Your task to perform on an android device: What's the weather going to be tomorrow? Image 0: 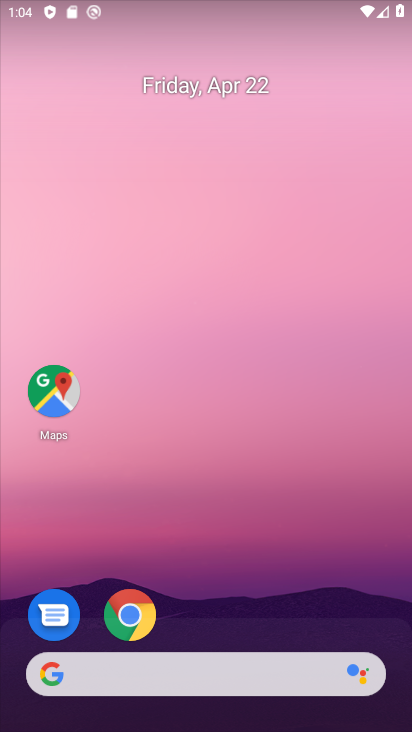
Step 0: click (147, 675)
Your task to perform on an android device: What's the weather going to be tomorrow? Image 1: 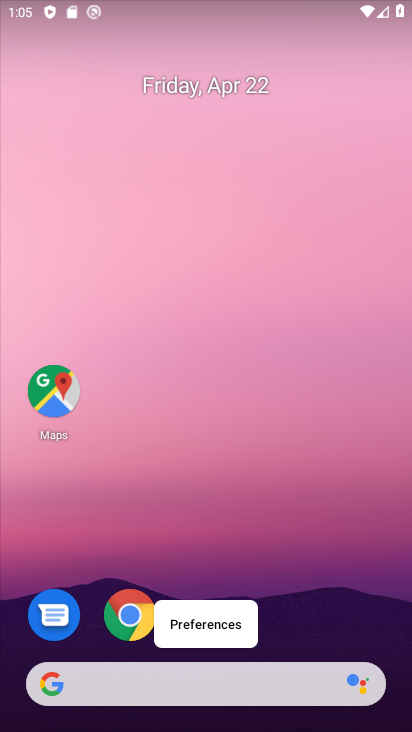
Step 1: click (151, 683)
Your task to perform on an android device: What's the weather going to be tomorrow? Image 2: 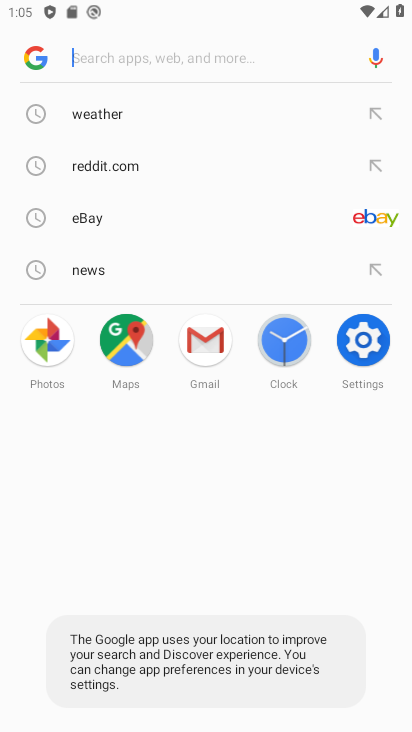
Step 2: click (115, 116)
Your task to perform on an android device: What's the weather going to be tomorrow? Image 3: 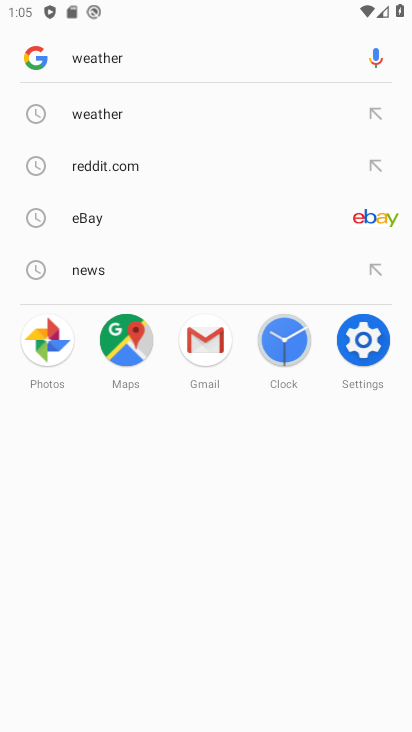
Step 3: click (173, 106)
Your task to perform on an android device: What's the weather going to be tomorrow? Image 4: 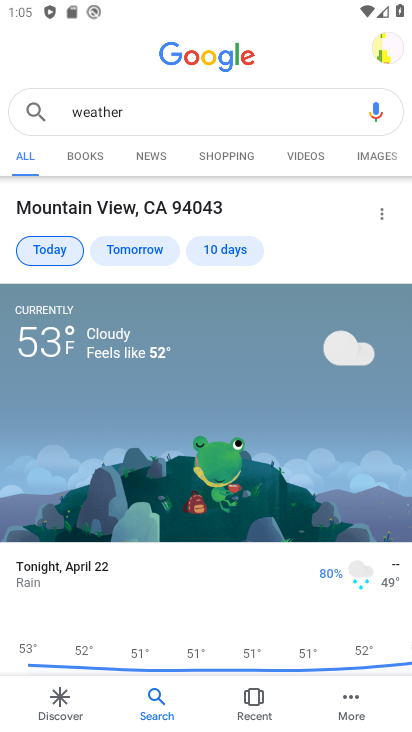
Step 4: click (135, 251)
Your task to perform on an android device: What's the weather going to be tomorrow? Image 5: 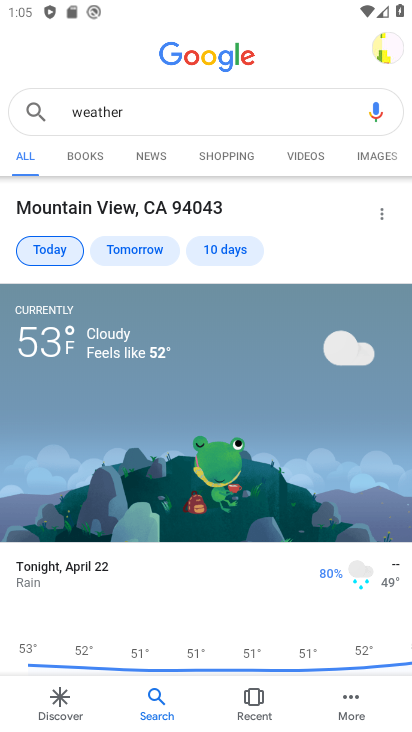
Step 5: click (135, 251)
Your task to perform on an android device: What's the weather going to be tomorrow? Image 6: 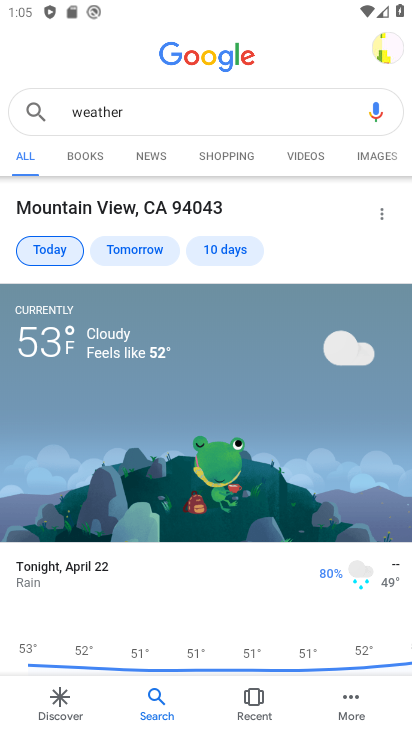
Step 6: click (138, 249)
Your task to perform on an android device: What's the weather going to be tomorrow? Image 7: 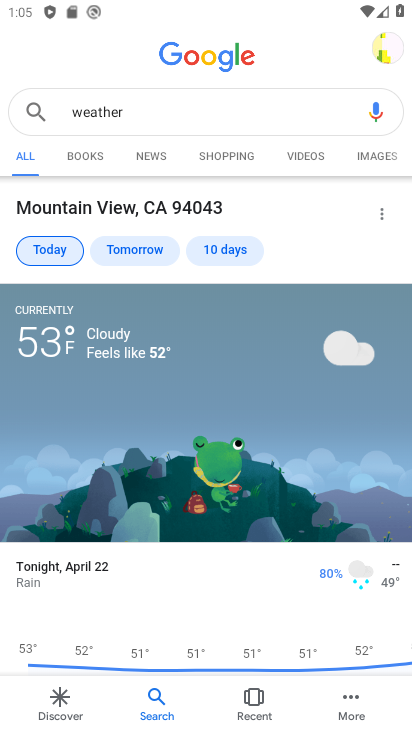
Step 7: drag from (283, 481) to (3, 430)
Your task to perform on an android device: What's the weather going to be tomorrow? Image 8: 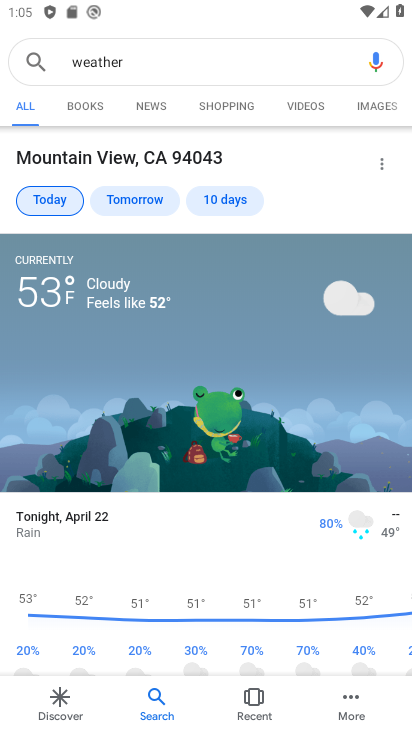
Step 8: drag from (189, 582) to (228, 435)
Your task to perform on an android device: What's the weather going to be tomorrow? Image 9: 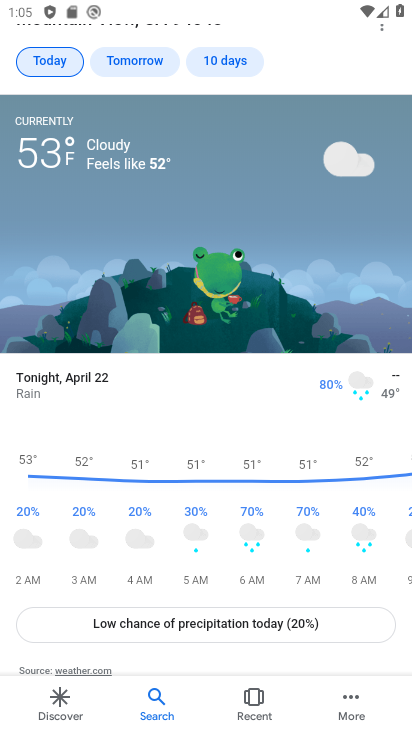
Step 9: drag from (228, 435) to (198, 652)
Your task to perform on an android device: What's the weather going to be tomorrow? Image 10: 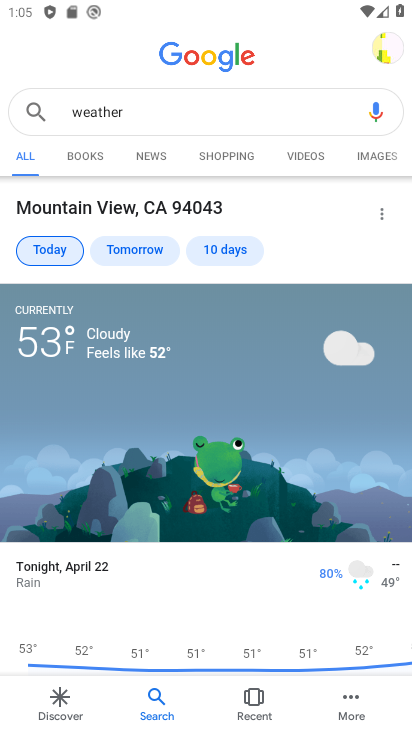
Step 10: click (125, 248)
Your task to perform on an android device: What's the weather going to be tomorrow? Image 11: 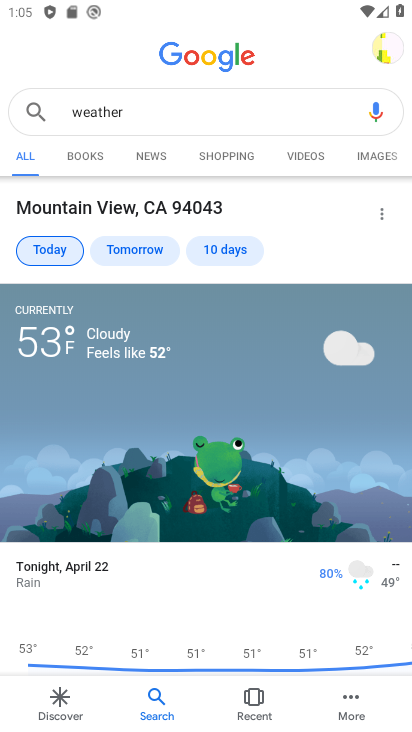
Step 11: click (125, 248)
Your task to perform on an android device: What's the weather going to be tomorrow? Image 12: 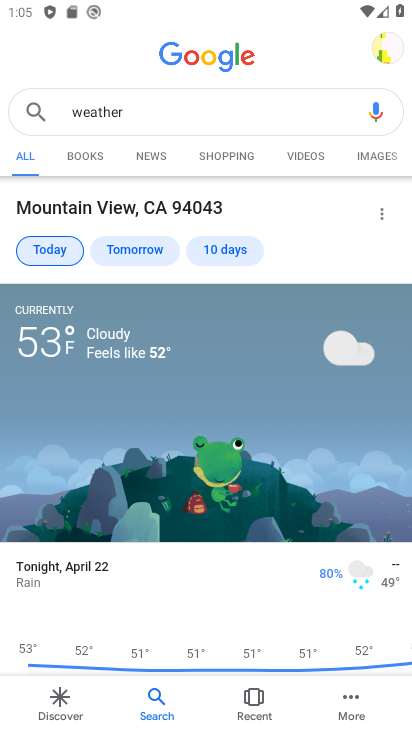
Step 12: click (125, 248)
Your task to perform on an android device: What's the weather going to be tomorrow? Image 13: 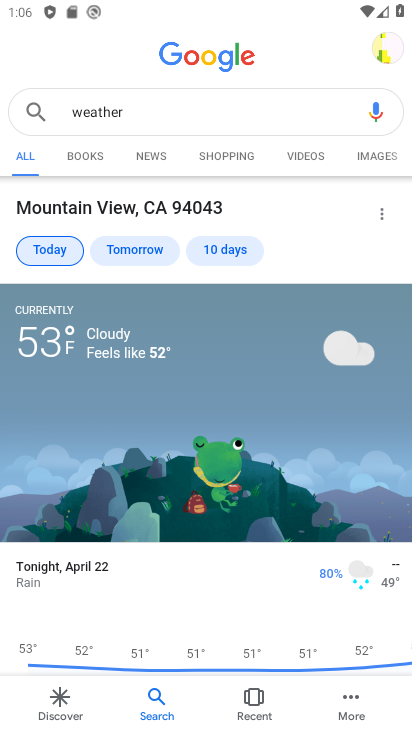
Step 13: task complete